Your task to perform on an android device: Search for a 4k TV on Best Buy Image 0: 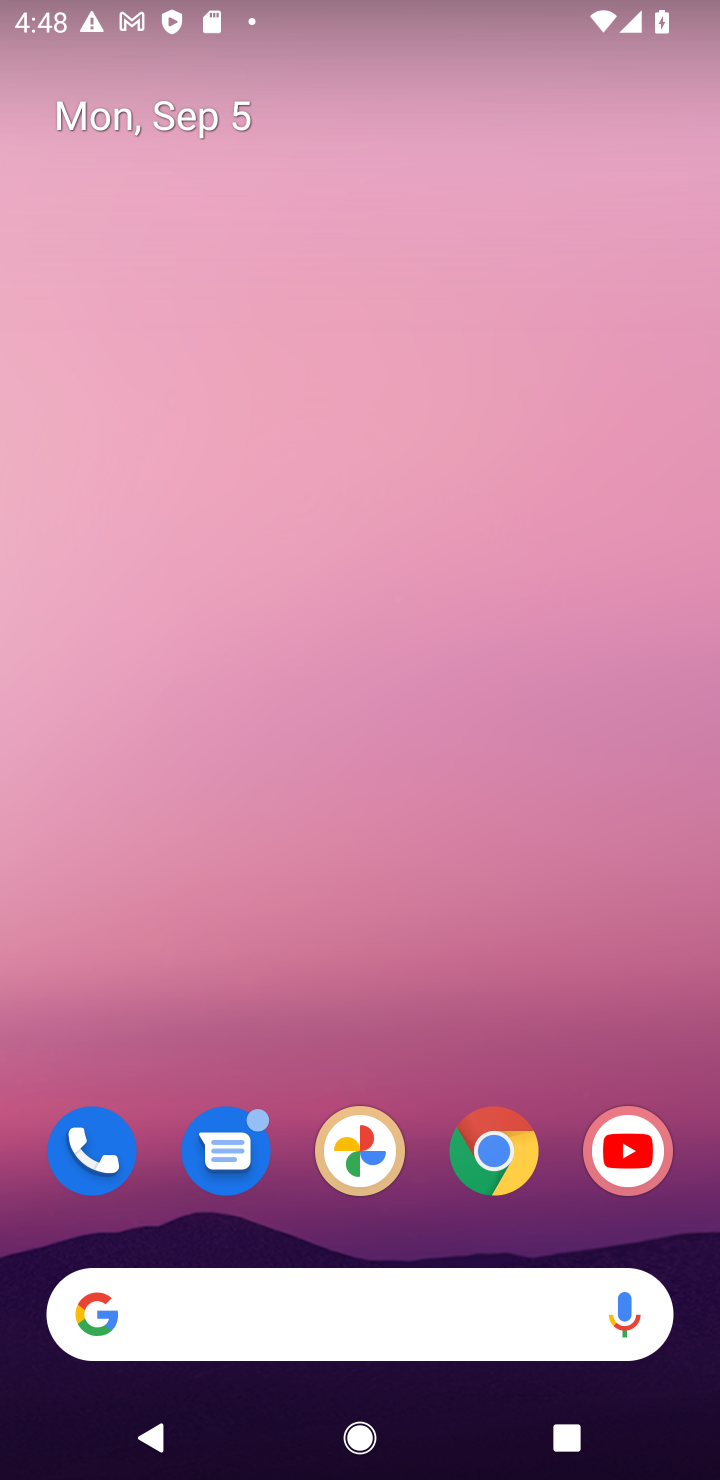
Step 0: click (496, 1185)
Your task to perform on an android device: Search for a 4k TV on Best Buy Image 1: 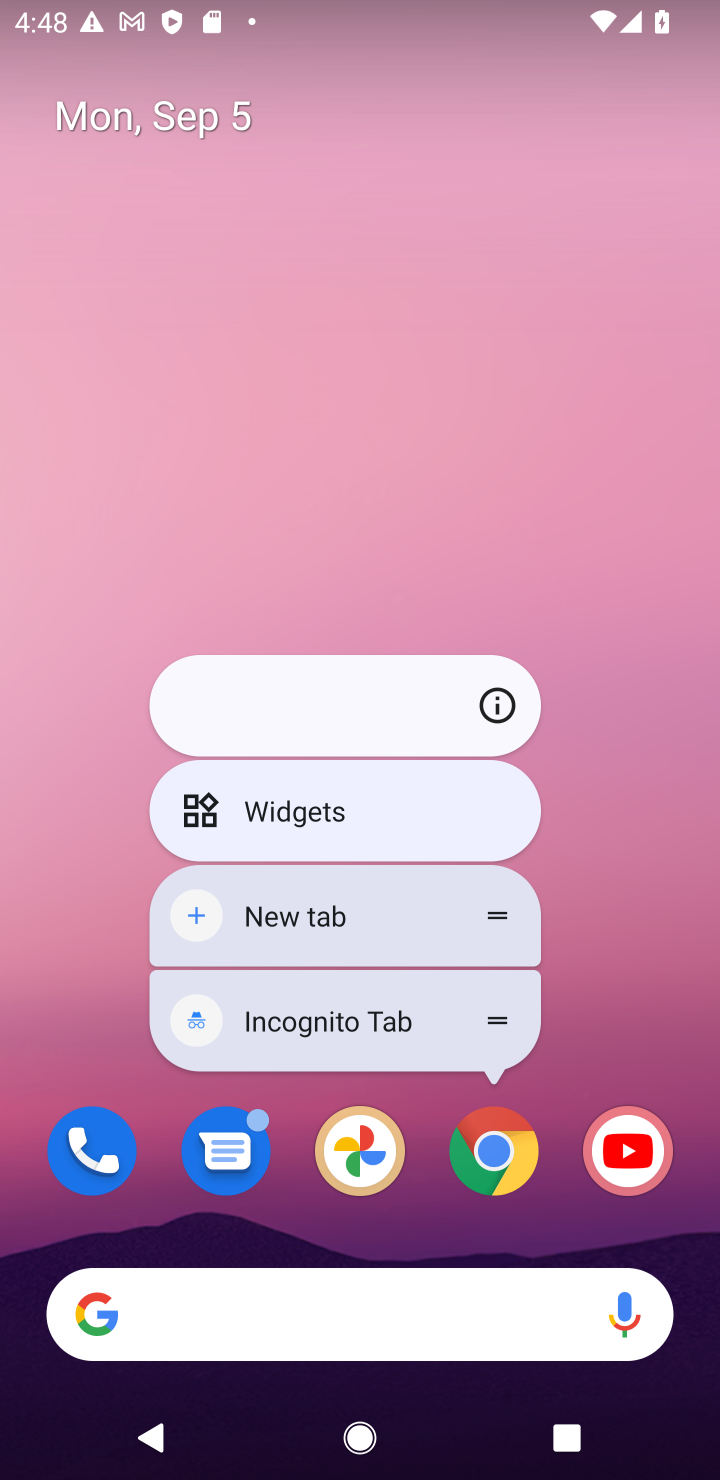
Step 1: click (496, 1185)
Your task to perform on an android device: Search for a 4k TV on Best Buy Image 2: 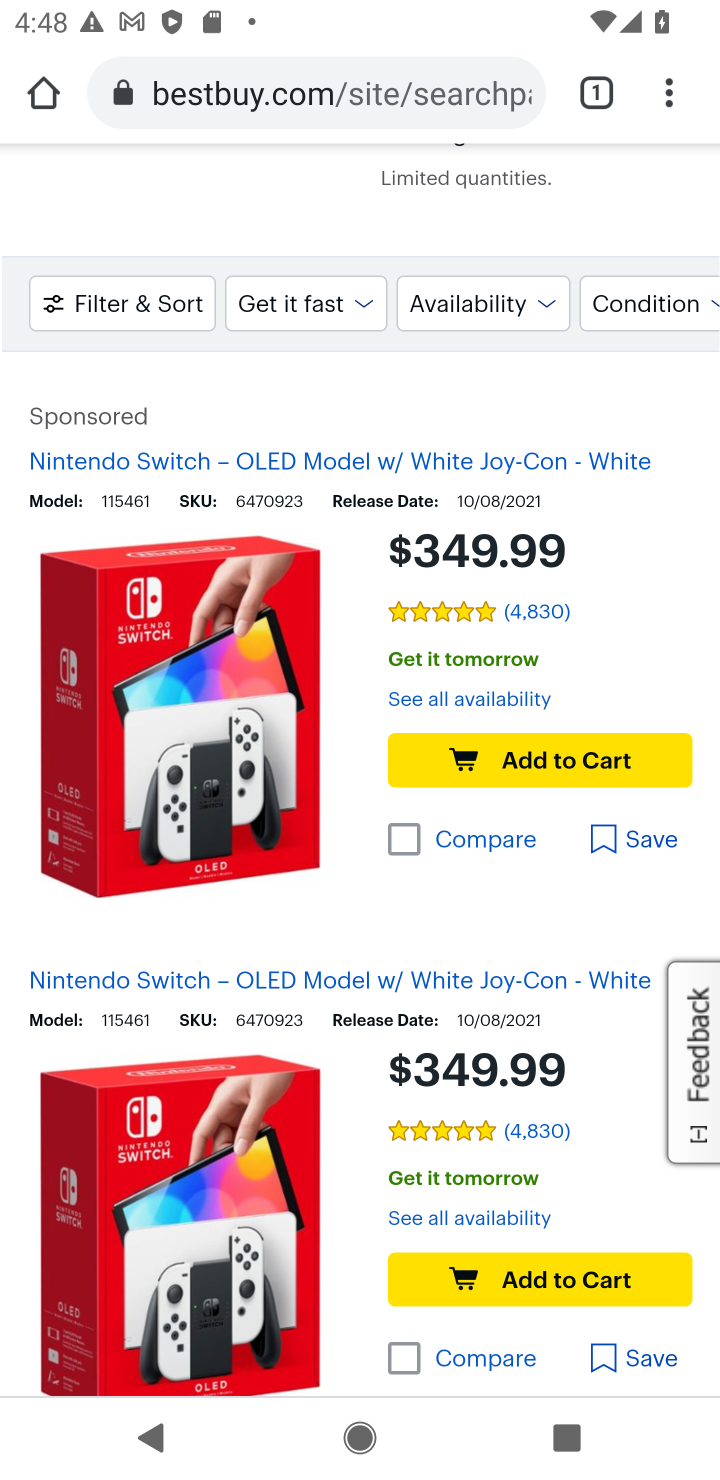
Step 2: click (434, 98)
Your task to perform on an android device: Search for a 4k TV on Best Buy Image 3: 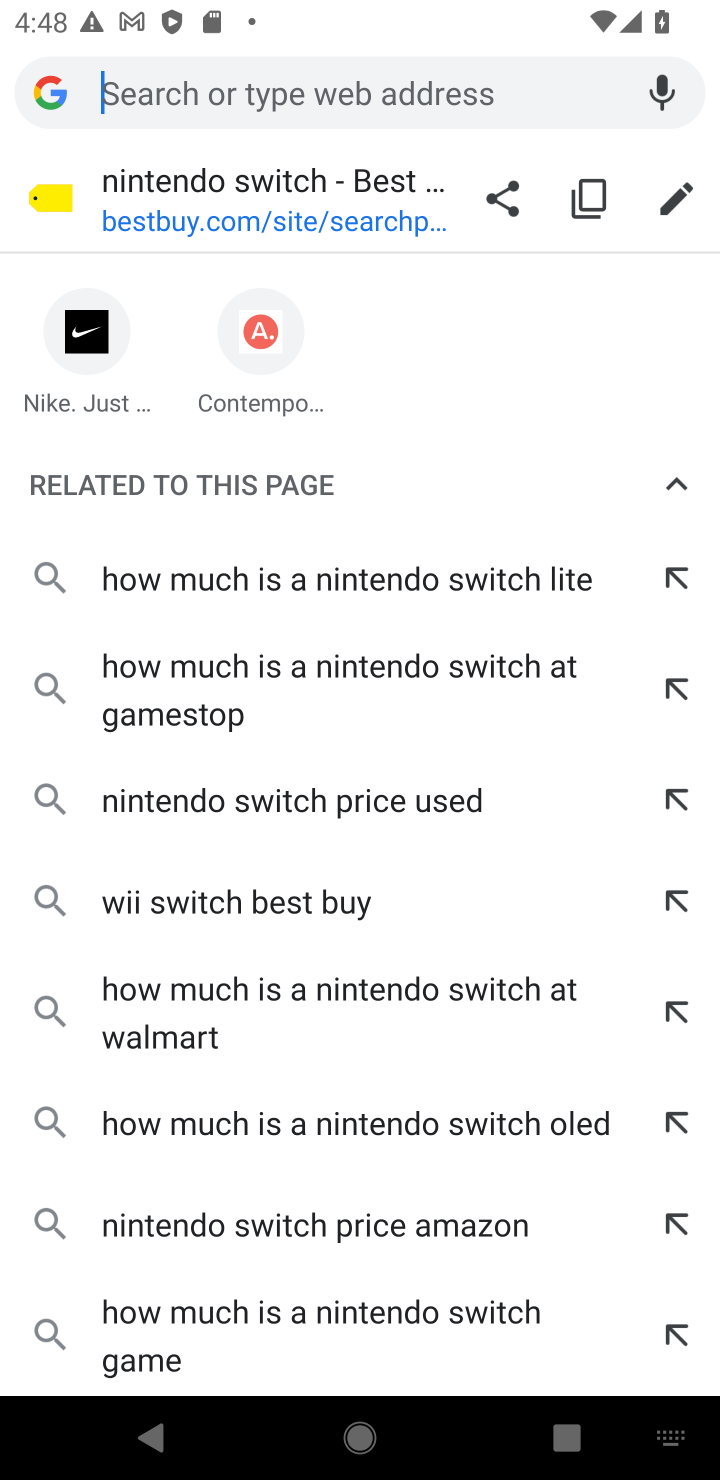
Step 3: click (177, 190)
Your task to perform on an android device: Search for a 4k TV on Best Buy Image 4: 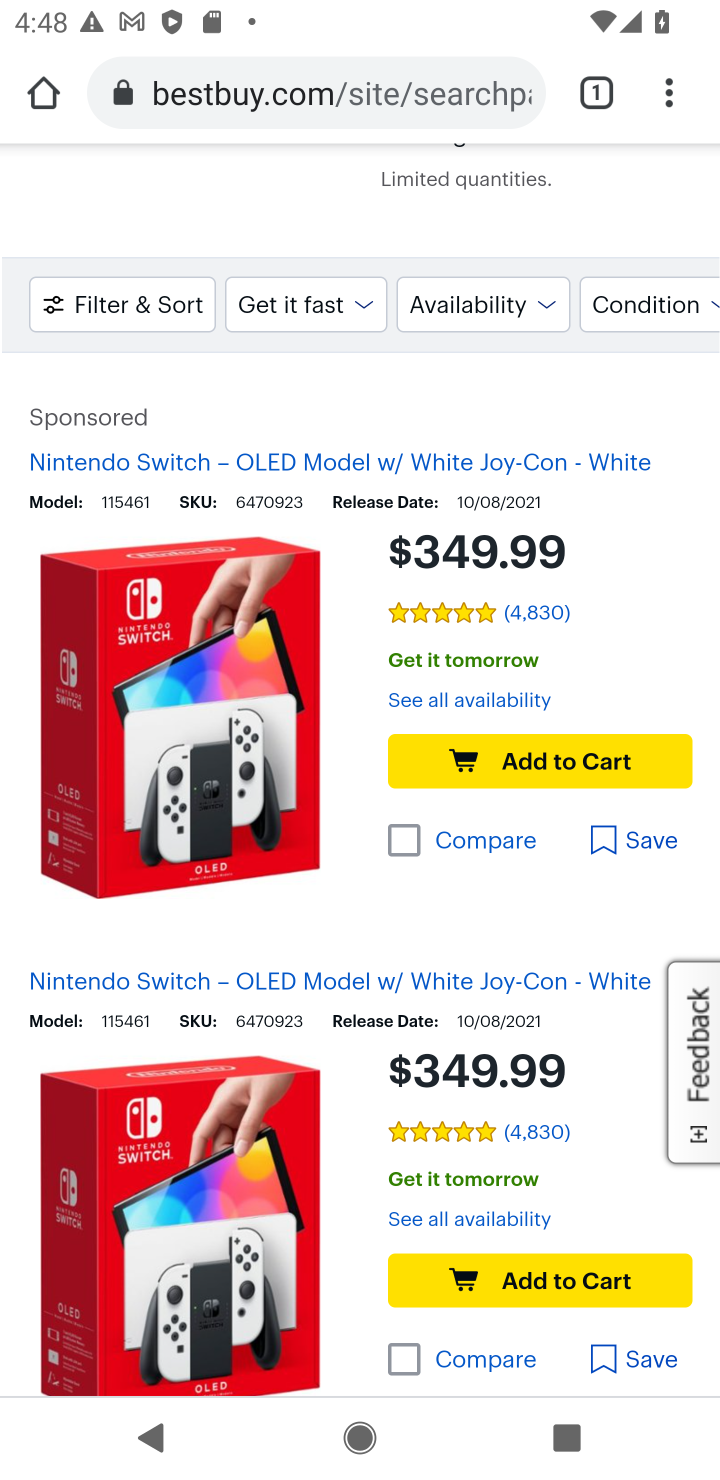
Step 4: drag from (520, 517) to (495, 859)
Your task to perform on an android device: Search for a 4k TV on Best Buy Image 5: 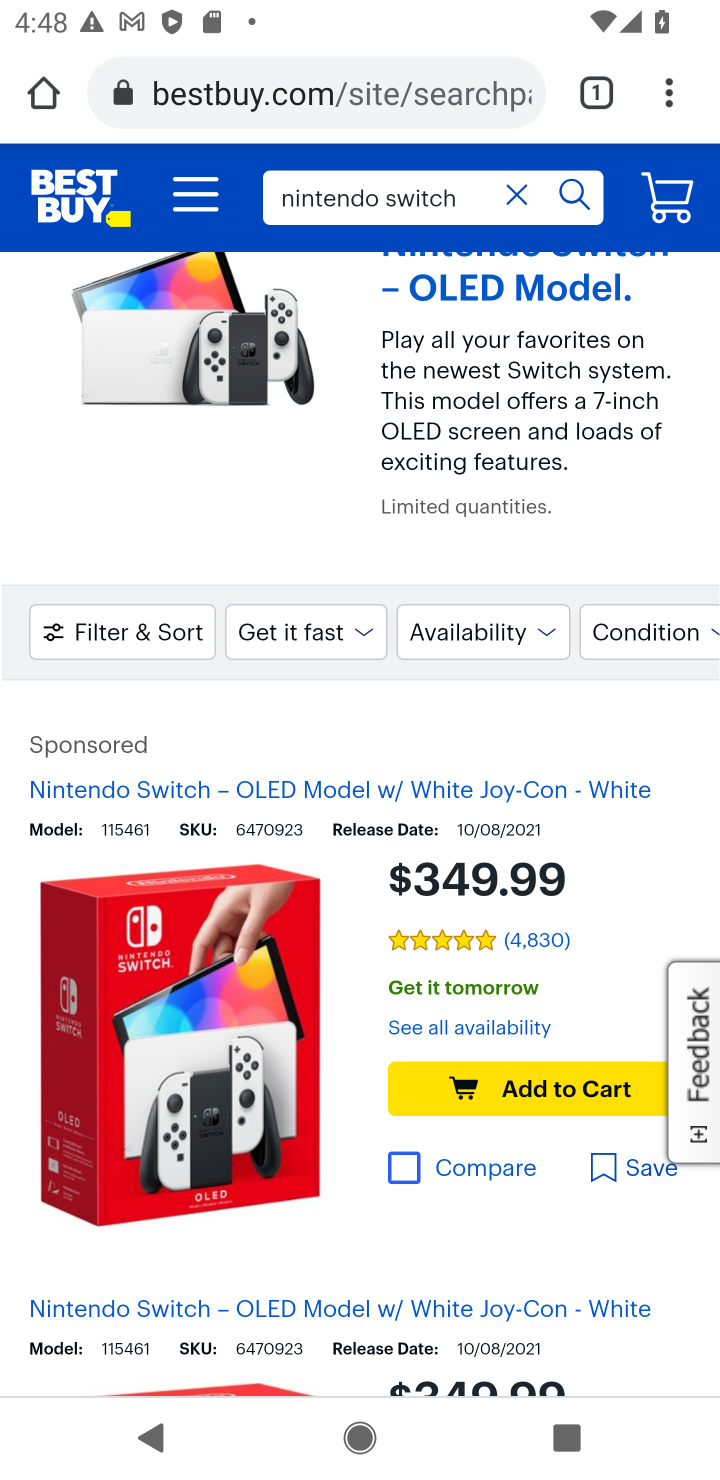
Step 5: click (513, 191)
Your task to perform on an android device: Search for a 4k TV on Best Buy Image 6: 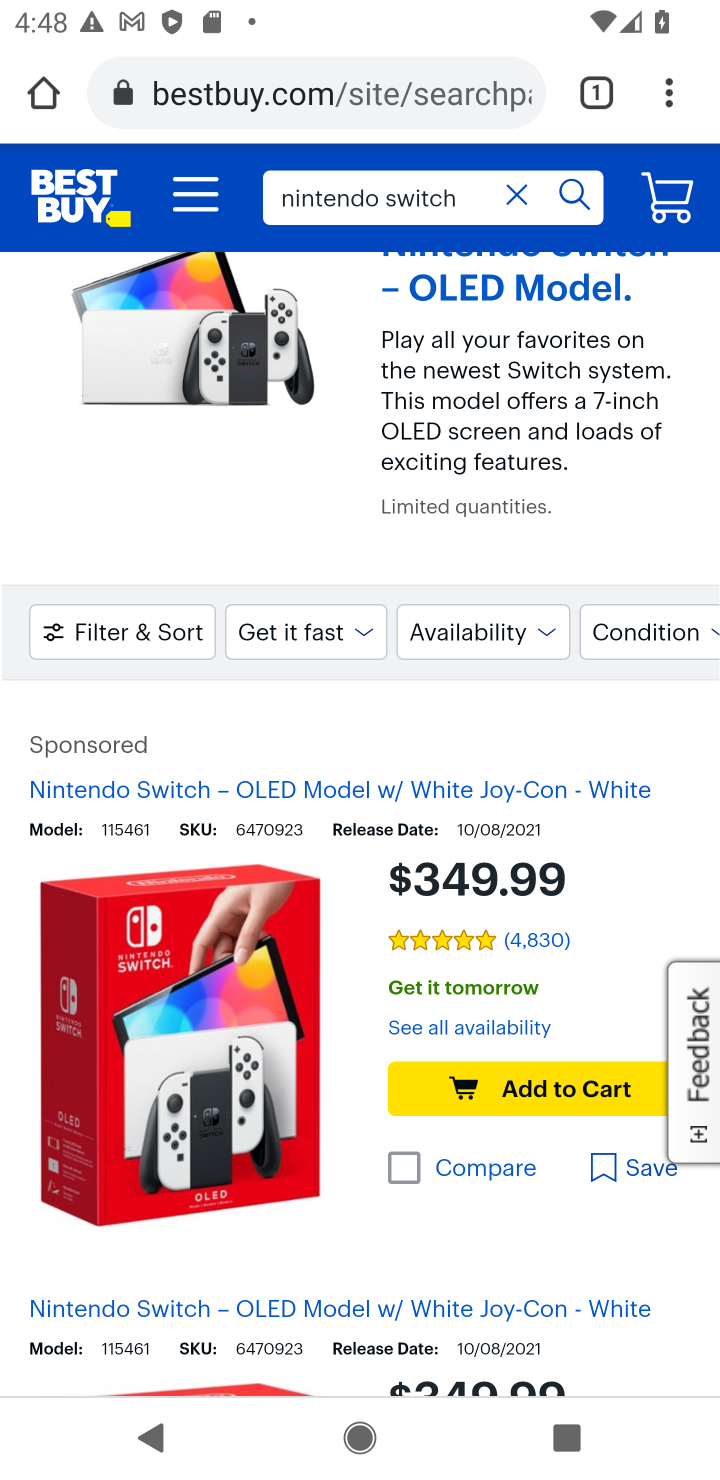
Step 6: click (513, 194)
Your task to perform on an android device: Search for a 4k TV on Best Buy Image 7: 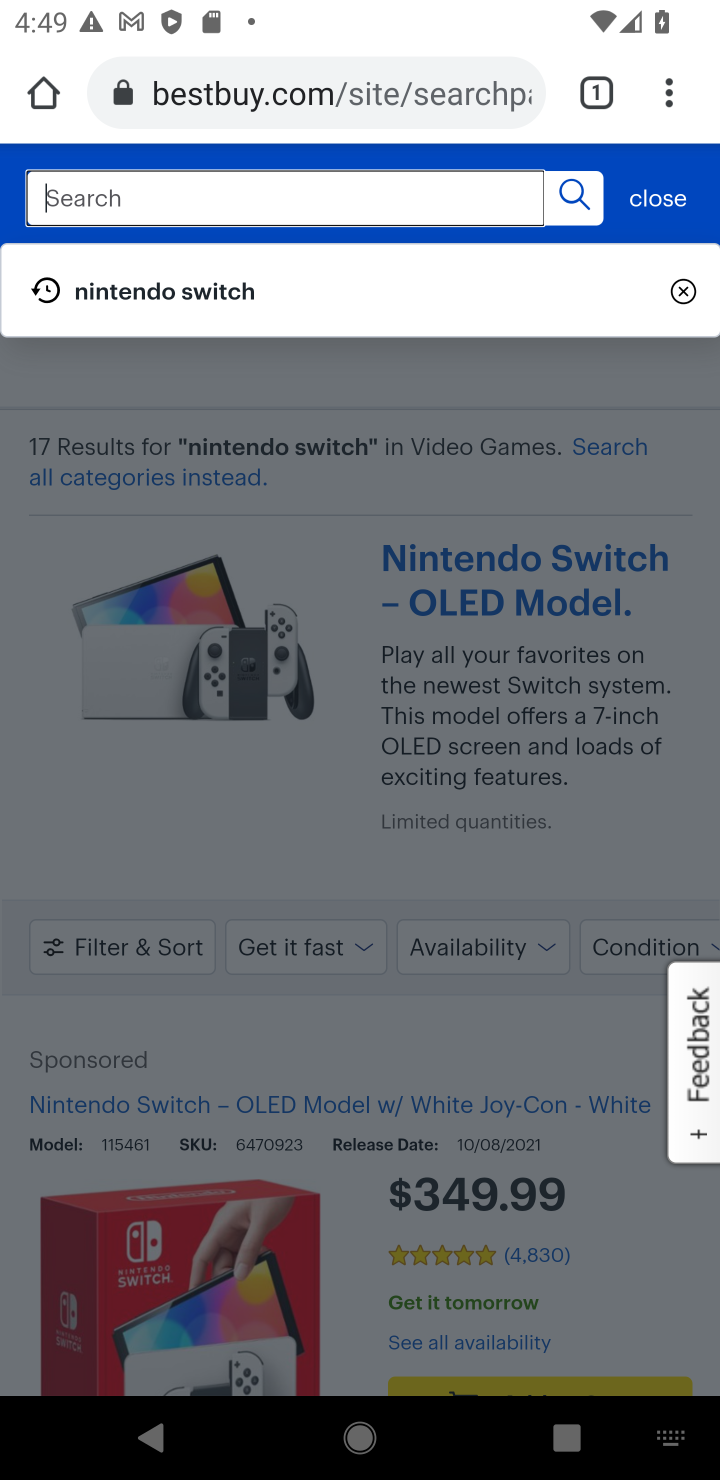
Step 7: type "4k TV"
Your task to perform on an android device: Search for a 4k TV on Best Buy Image 8: 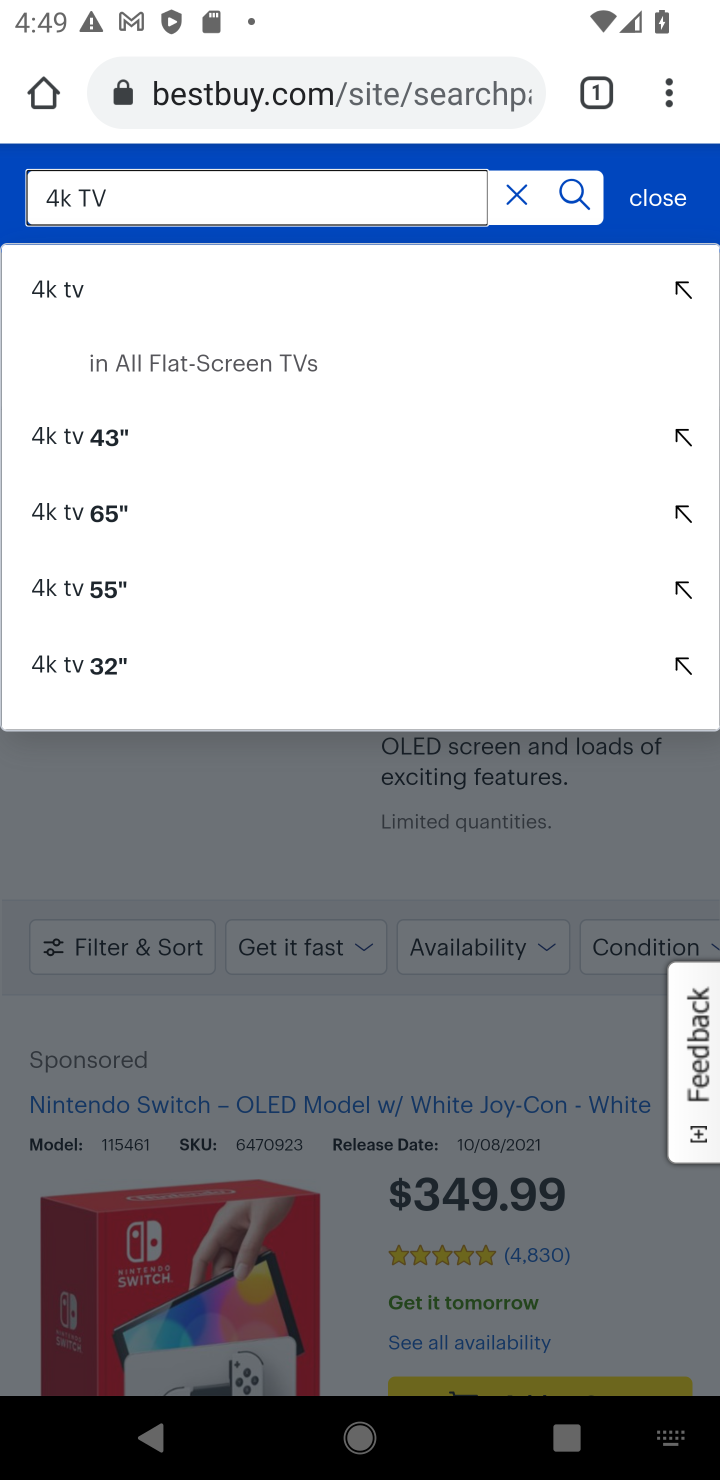
Step 8: click (573, 195)
Your task to perform on an android device: Search for a 4k TV on Best Buy Image 9: 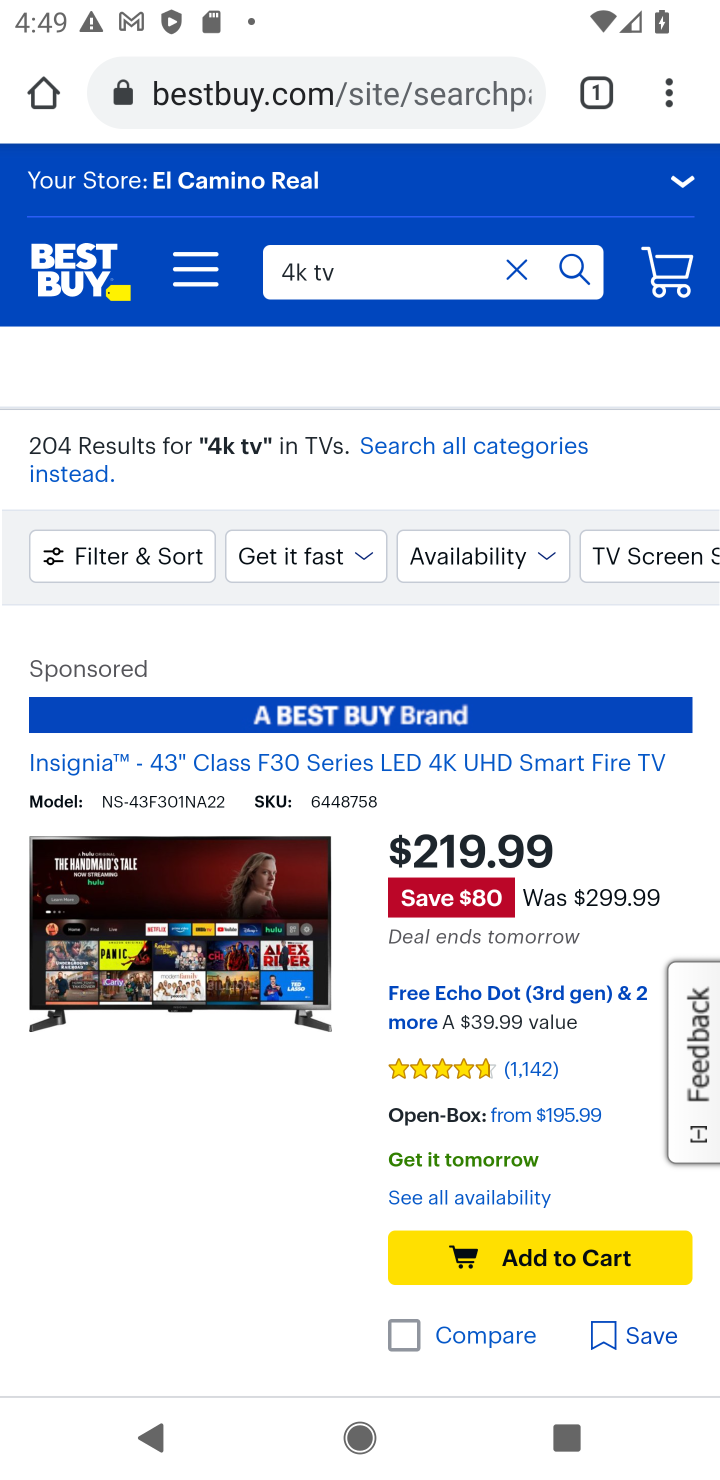
Step 9: task complete